Your task to perform on an android device: Go to Wikipedia Image 0: 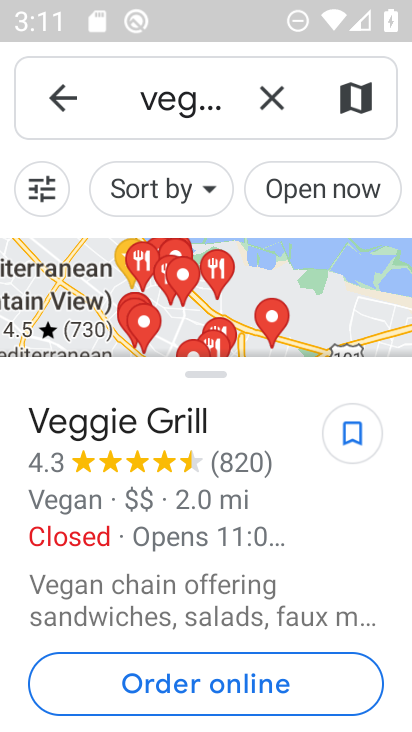
Step 0: press home button
Your task to perform on an android device: Go to Wikipedia Image 1: 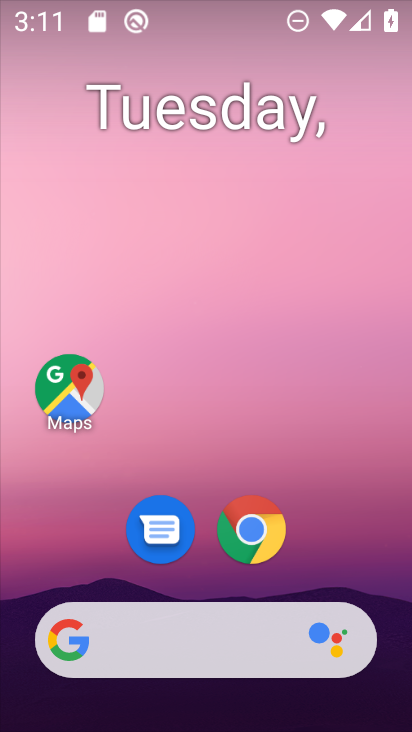
Step 1: click (251, 532)
Your task to perform on an android device: Go to Wikipedia Image 2: 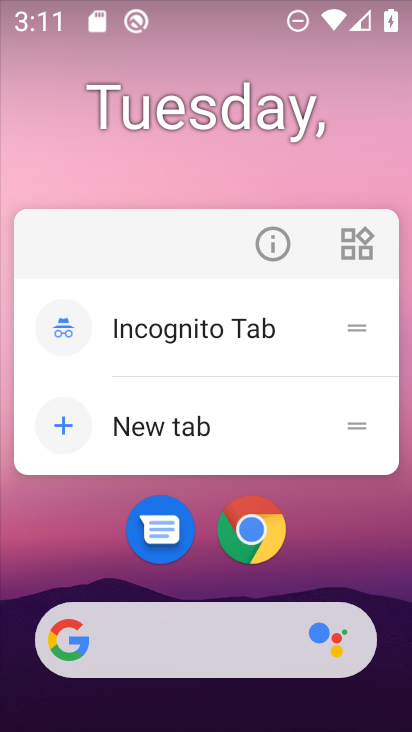
Step 2: click (245, 515)
Your task to perform on an android device: Go to Wikipedia Image 3: 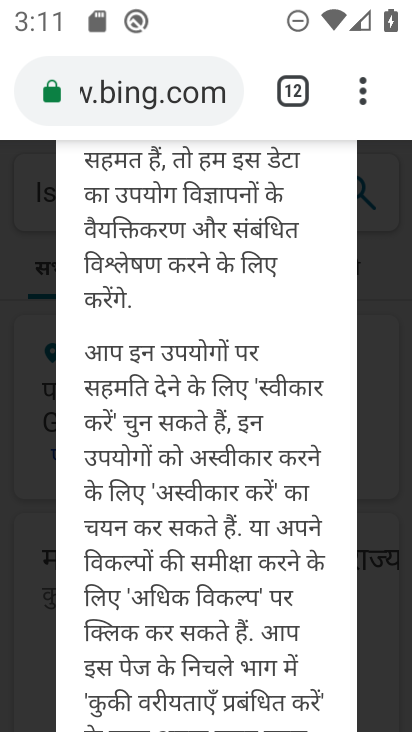
Step 3: click (356, 93)
Your task to perform on an android device: Go to Wikipedia Image 4: 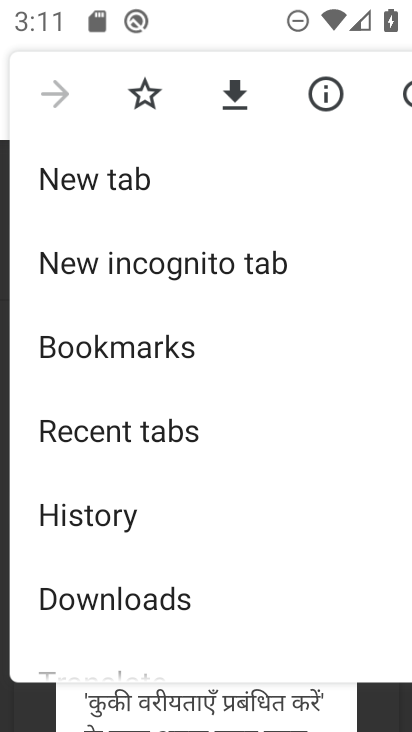
Step 4: click (53, 184)
Your task to perform on an android device: Go to Wikipedia Image 5: 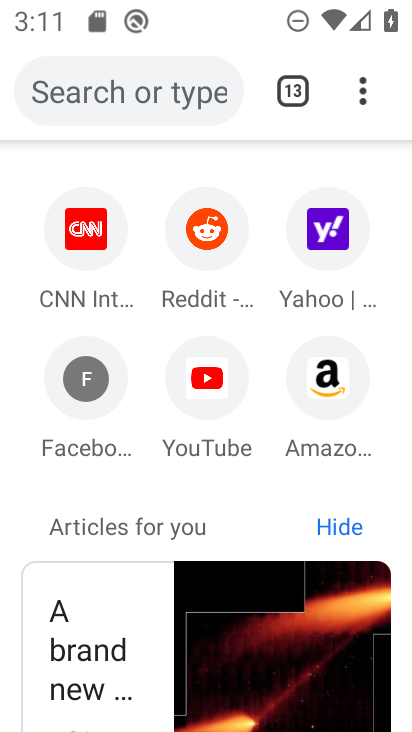
Step 5: click (184, 91)
Your task to perform on an android device: Go to Wikipedia Image 6: 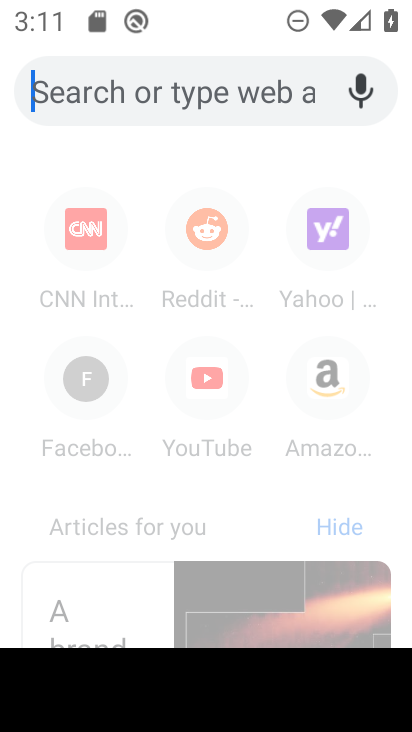
Step 6: type " Wikipedia"
Your task to perform on an android device: Go to Wikipedia Image 7: 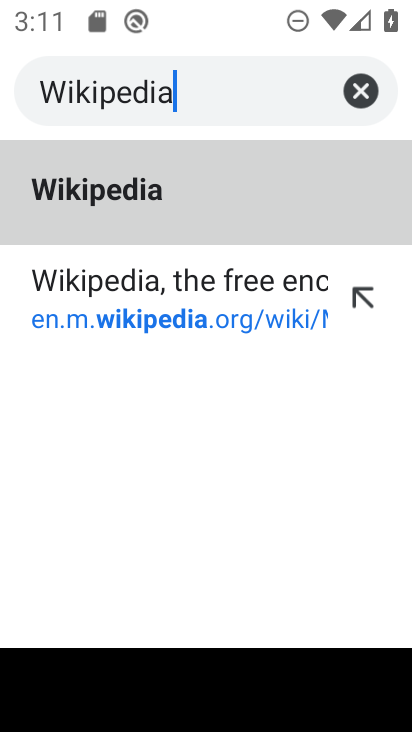
Step 7: click (112, 185)
Your task to perform on an android device: Go to Wikipedia Image 8: 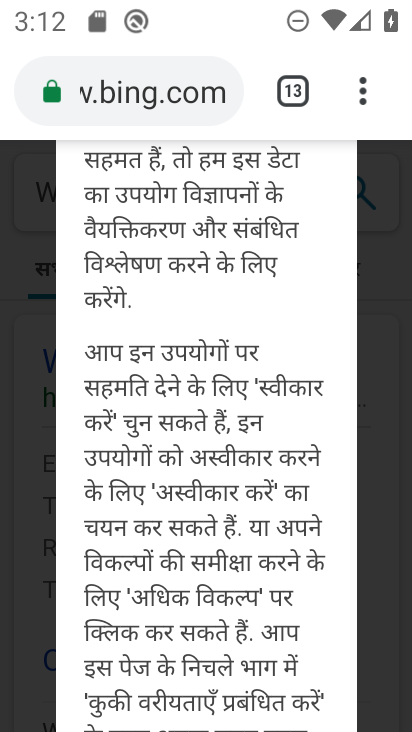
Step 8: task complete